Your task to perform on an android device: See recent photos Image 0: 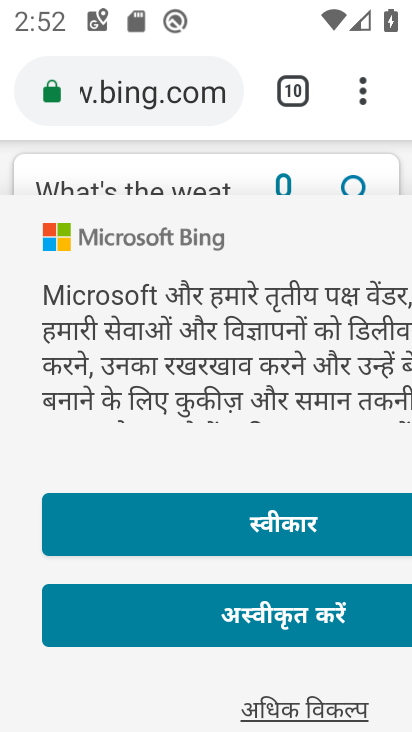
Step 0: press home button
Your task to perform on an android device: See recent photos Image 1: 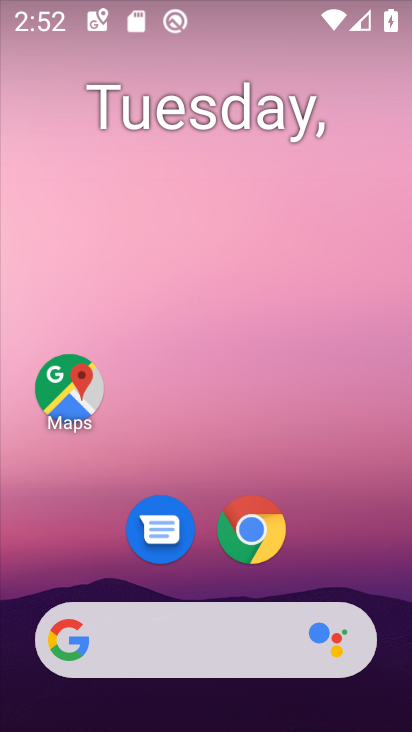
Step 1: drag from (313, 566) to (310, 172)
Your task to perform on an android device: See recent photos Image 2: 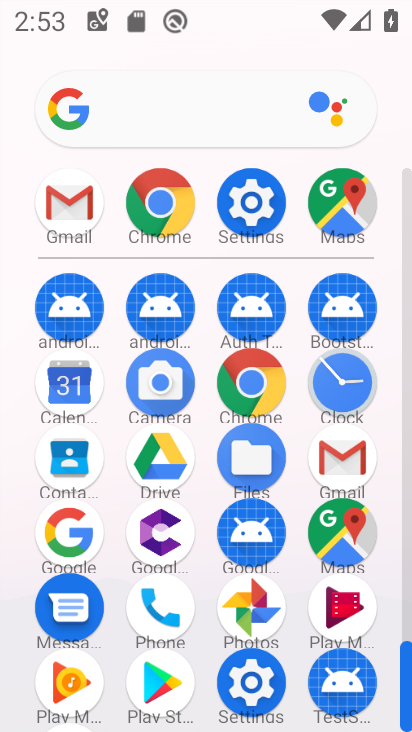
Step 2: click (233, 595)
Your task to perform on an android device: See recent photos Image 3: 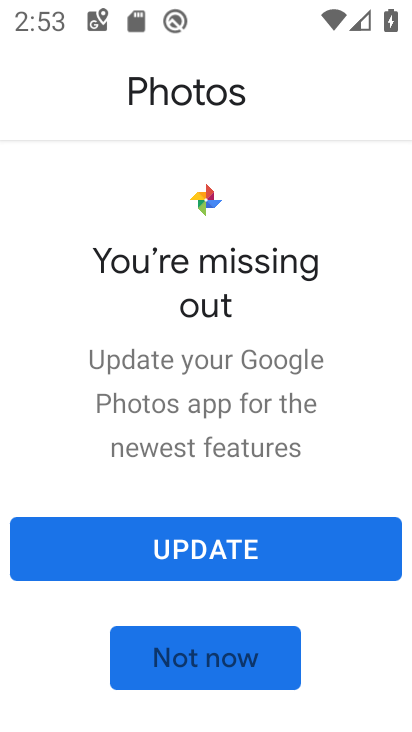
Step 3: click (222, 662)
Your task to perform on an android device: See recent photos Image 4: 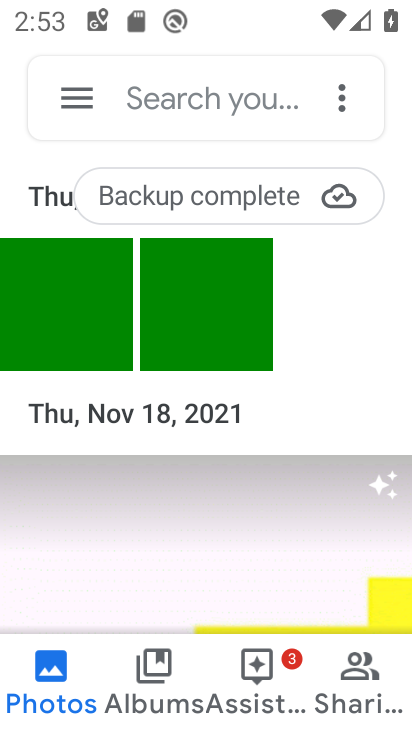
Step 4: press back button
Your task to perform on an android device: See recent photos Image 5: 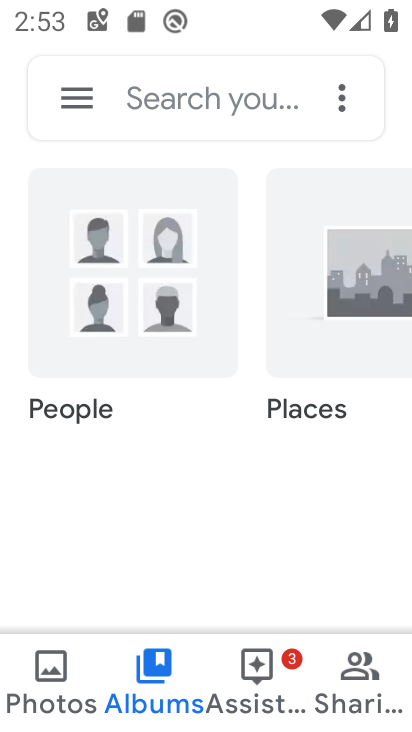
Step 5: click (56, 660)
Your task to perform on an android device: See recent photos Image 6: 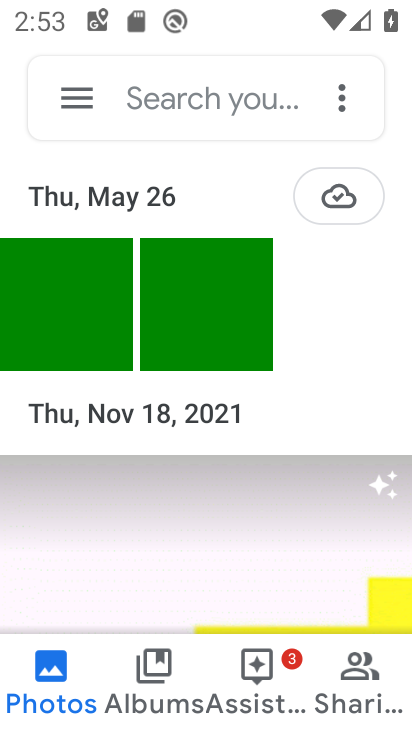
Step 6: task complete